Your task to perform on an android device: toggle notification dots Image 0: 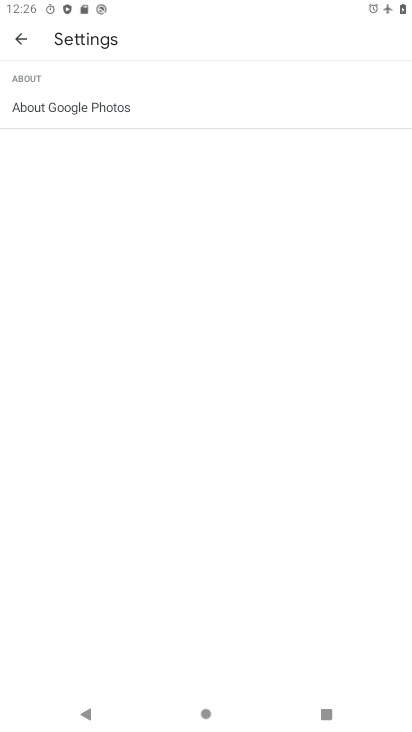
Step 0: press home button
Your task to perform on an android device: toggle notification dots Image 1: 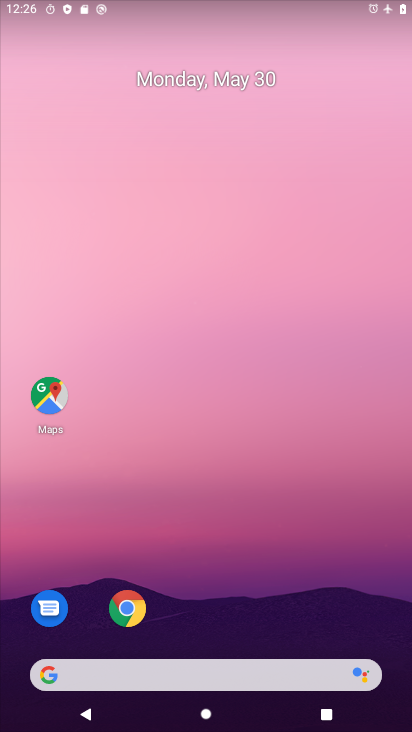
Step 1: drag from (249, 650) to (154, 0)
Your task to perform on an android device: toggle notification dots Image 2: 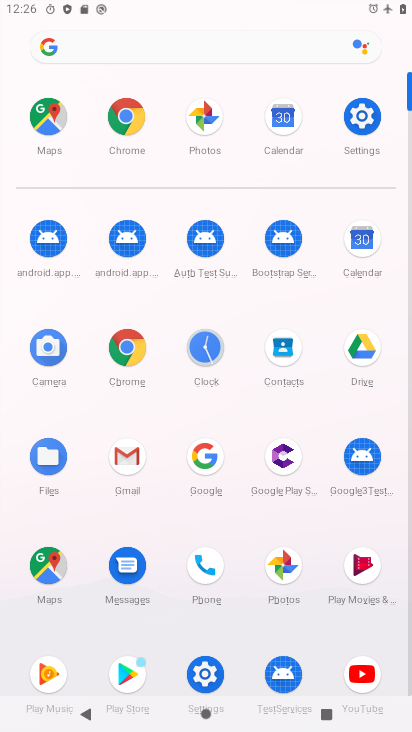
Step 2: click (351, 110)
Your task to perform on an android device: toggle notification dots Image 3: 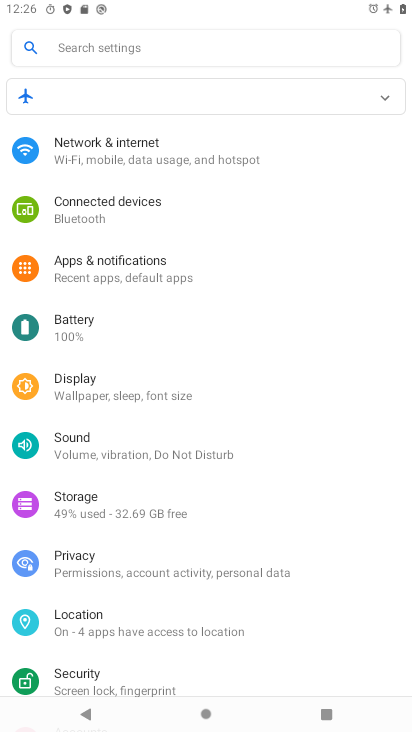
Step 3: click (134, 262)
Your task to perform on an android device: toggle notification dots Image 4: 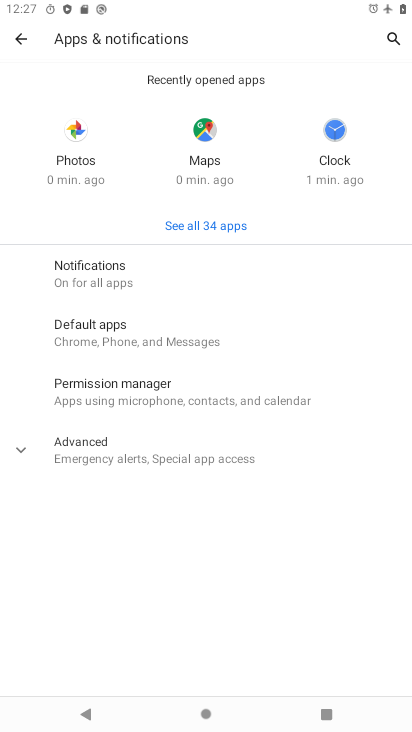
Step 4: click (134, 262)
Your task to perform on an android device: toggle notification dots Image 5: 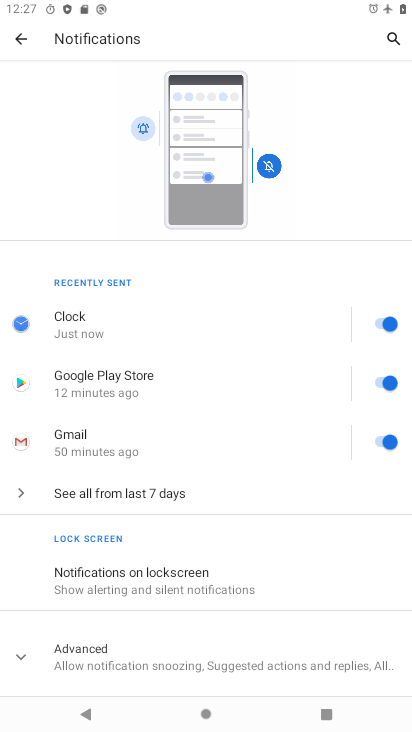
Step 5: drag from (220, 620) to (197, 173)
Your task to perform on an android device: toggle notification dots Image 6: 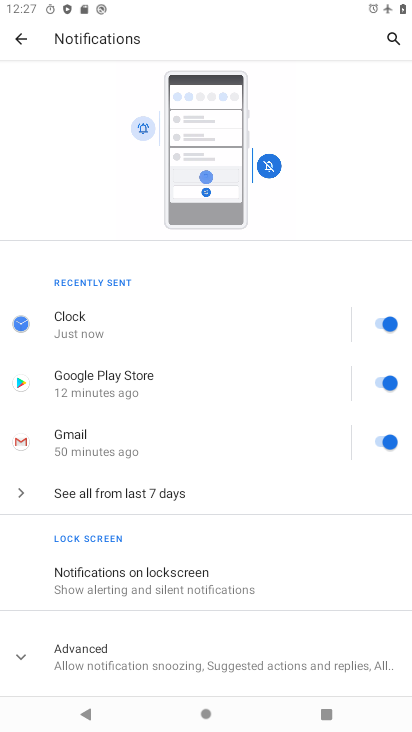
Step 6: click (217, 657)
Your task to perform on an android device: toggle notification dots Image 7: 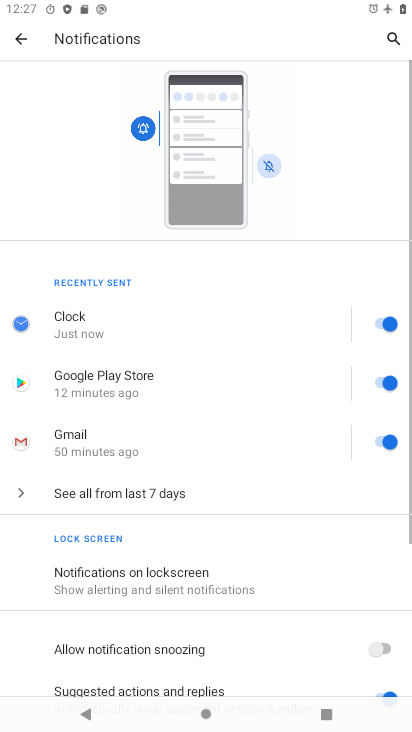
Step 7: drag from (229, 591) to (190, 172)
Your task to perform on an android device: toggle notification dots Image 8: 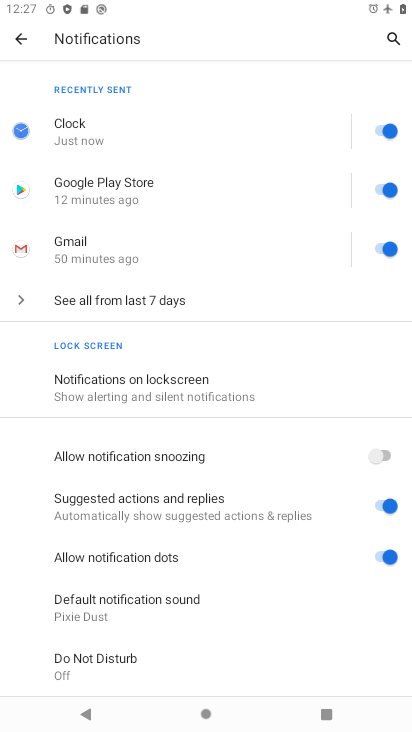
Step 8: click (386, 556)
Your task to perform on an android device: toggle notification dots Image 9: 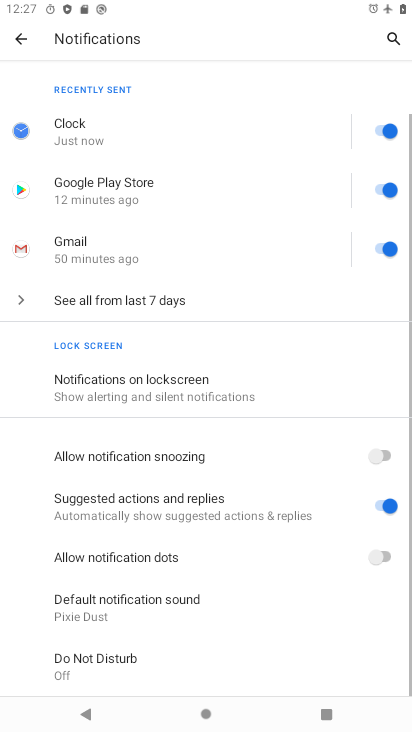
Step 9: task complete